Your task to perform on an android device: check storage Image 0: 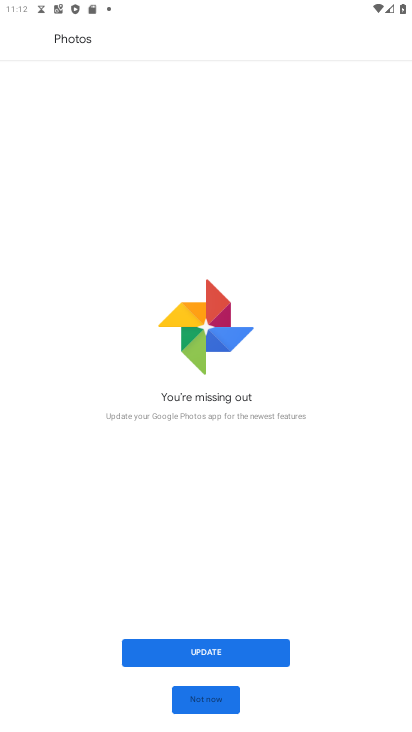
Step 0: press home button
Your task to perform on an android device: check storage Image 1: 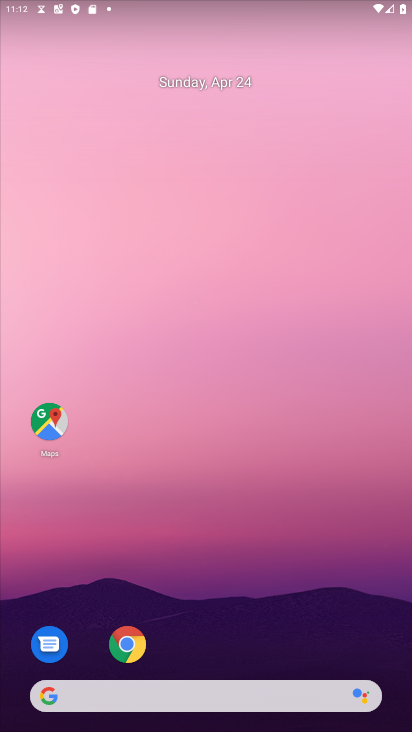
Step 1: drag from (304, 647) to (310, 25)
Your task to perform on an android device: check storage Image 2: 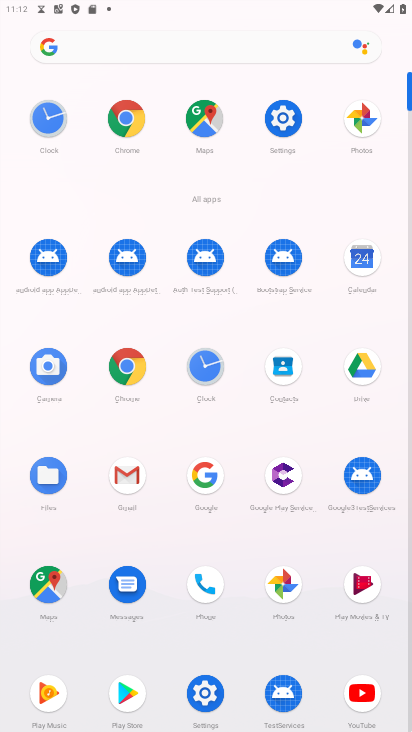
Step 2: click (278, 127)
Your task to perform on an android device: check storage Image 3: 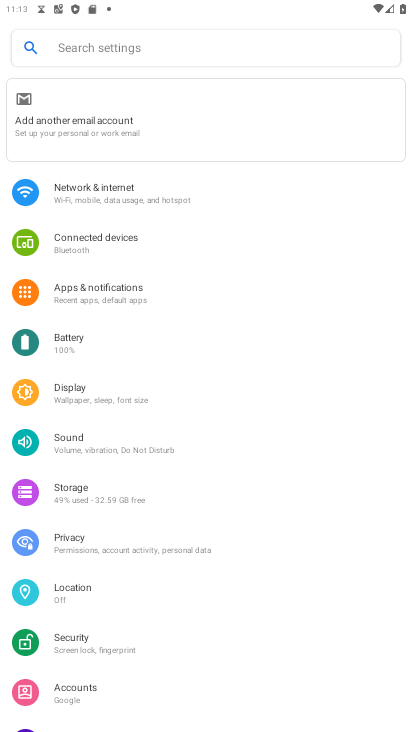
Step 3: click (74, 499)
Your task to perform on an android device: check storage Image 4: 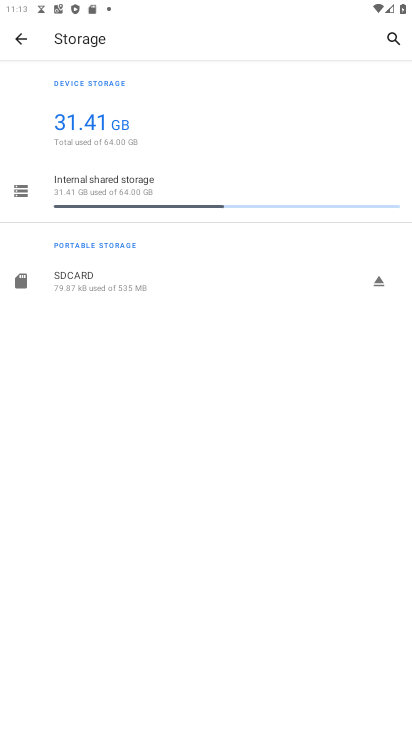
Step 4: click (94, 171)
Your task to perform on an android device: check storage Image 5: 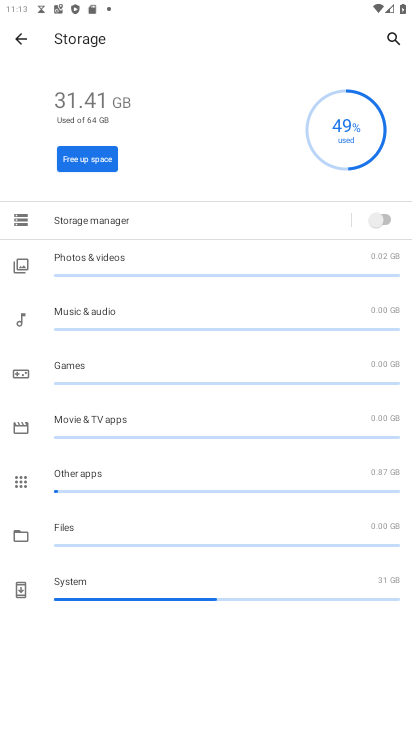
Step 5: task complete